Your task to perform on an android device: turn on data saver in the chrome app Image 0: 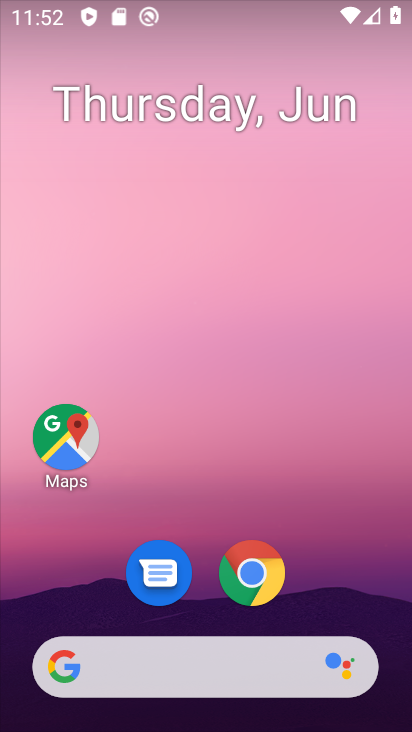
Step 0: click (289, 555)
Your task to perform on an android device: turn on data saver in the chrome app Image 1: 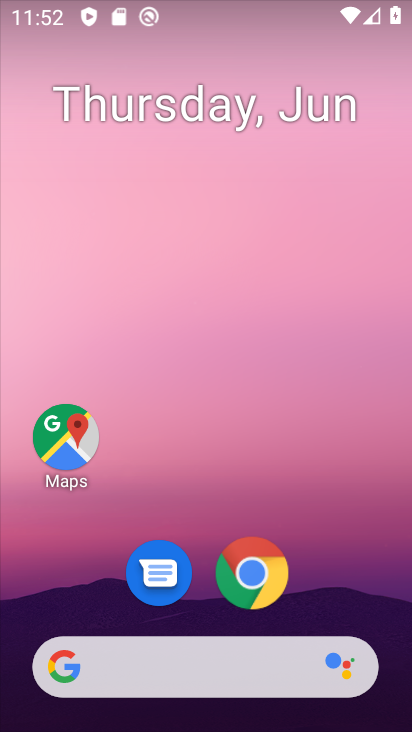
Step 1: click (275, 562)
Your task to perform on an android device: turn on data saver in the chrome app Image 2: 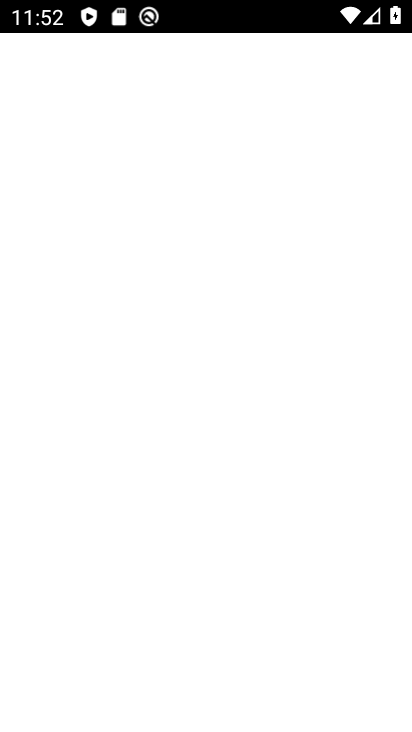
Step 2: task complete